Your task to perform on an android device: Go to ESPN.com Image 0: 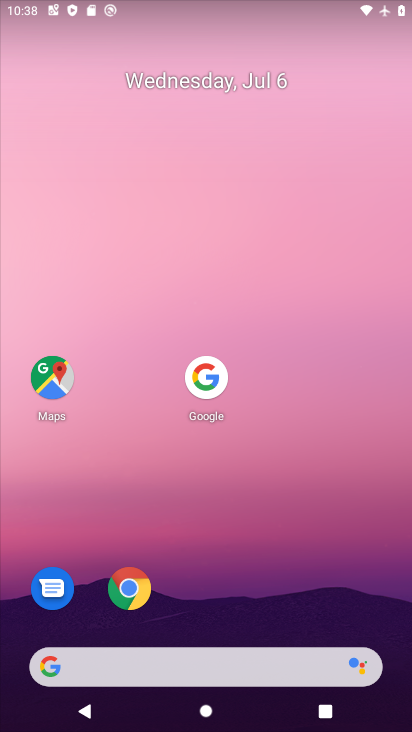
Step 0: click (135, 591)
Your task to perform on an android device: Go to ESPN.com Image 1: 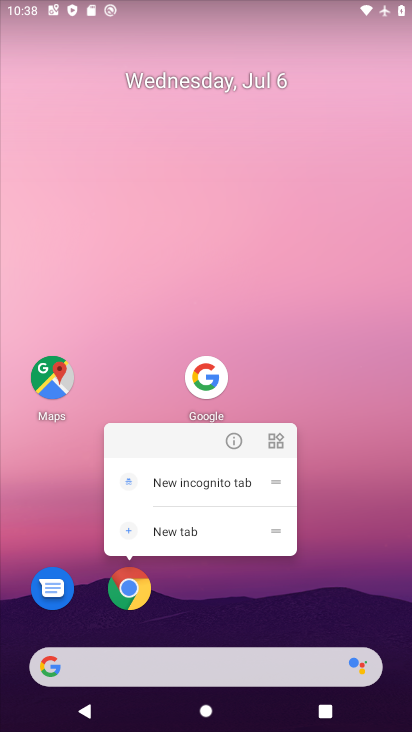
Step 1: click (129, 598)
Your task to perform on an android device: Go to ESPN.com Image 2: 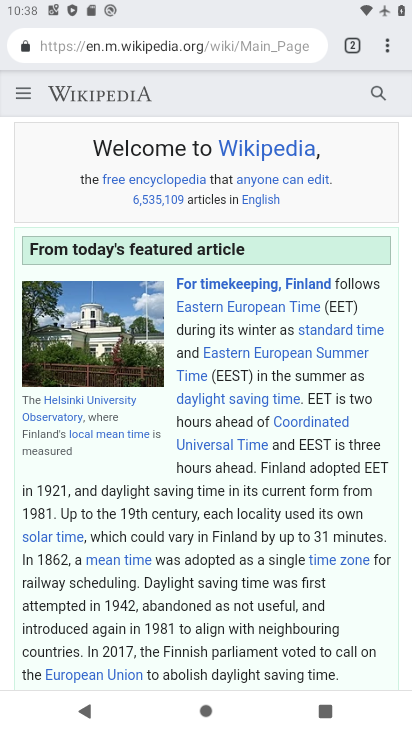
Step 2: click (381, 56)
Your task to perform on an android device: Go to ESPN.com Image 3: 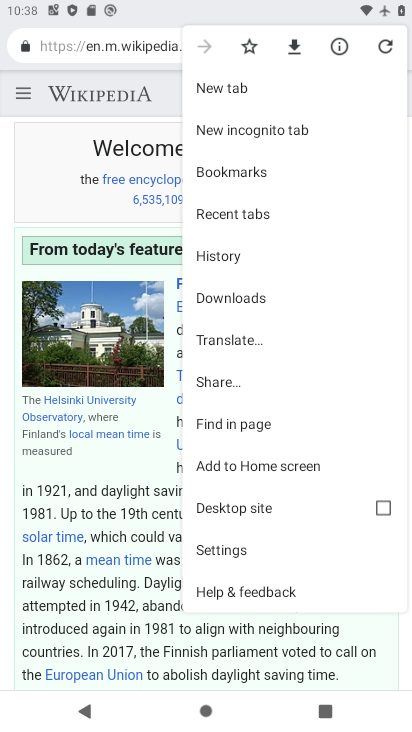
Step 3: click (256, 85)
Your task to perform on an android device: Go to ESPN.com Image 4: 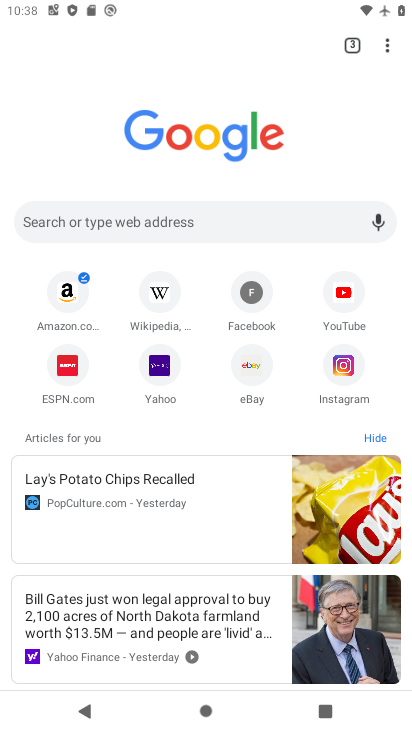
Step 4: click (66, 370)
Your task to perform on an android device: Go to ESPN.com Image 5: 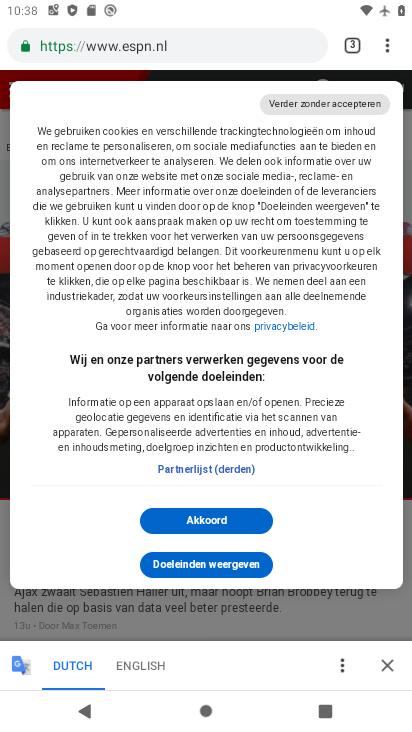
Step 5: click (150, 669)
Your task to perform on an android device: Go to ESPN.com Image 6: 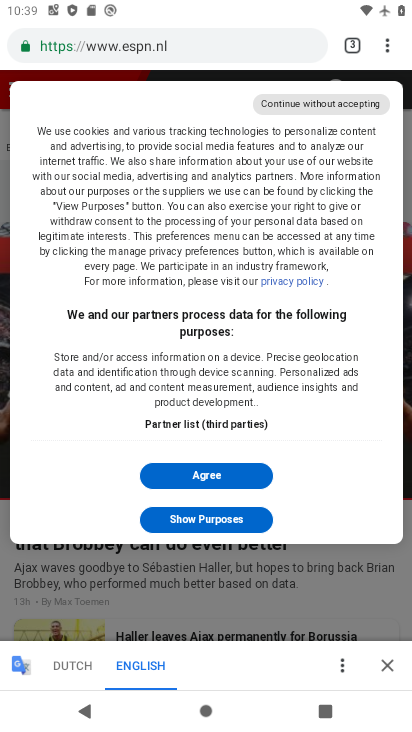
Step 6: click (225, 480)
Your task to perform on an android device: Go to ESPN.com Image 7: 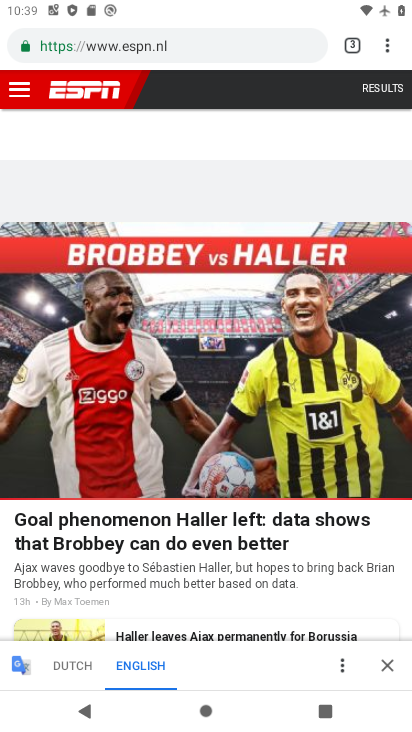
Step 7: task complete